Your task to perform on an android device: manage bookmarks in the chrome app Image 0: 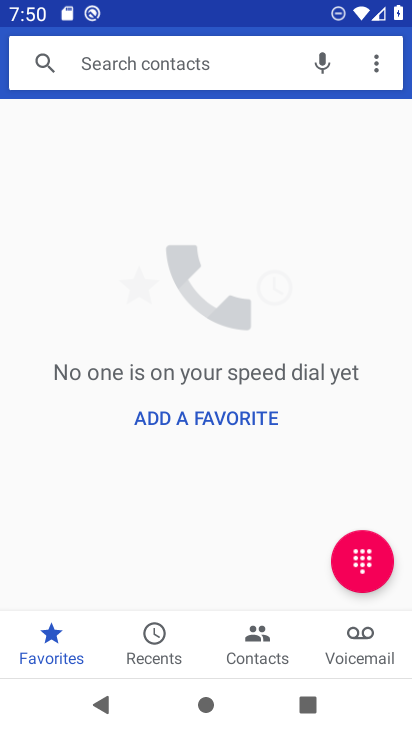
Step 0: press home button
Your task to perform on an android device: manage bookmarks in the chrome app Image 1: 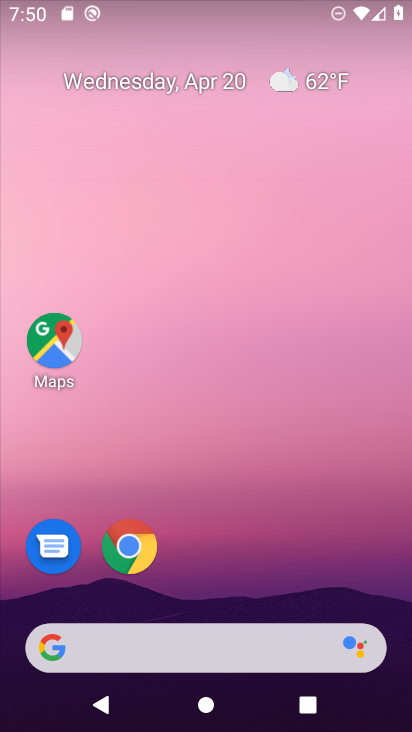
Step 1: click (141, 544)
Your task to perform on an android device: manage bookmarks in the chrome app Image 2: 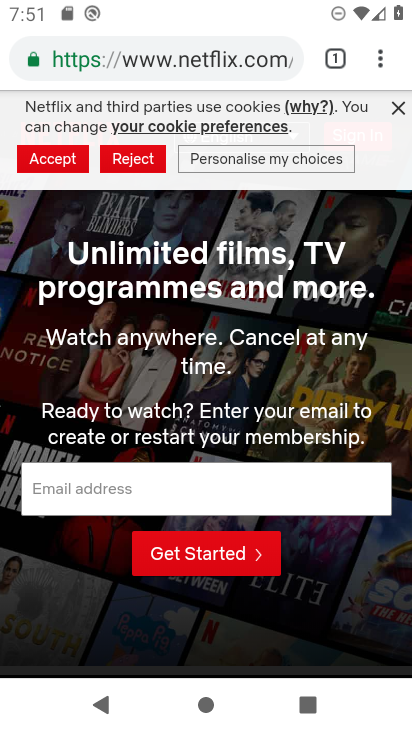
Step 2: click (378, 53)
Your task to perform on an android device: manage bookmarks in the chrome app Image 3: 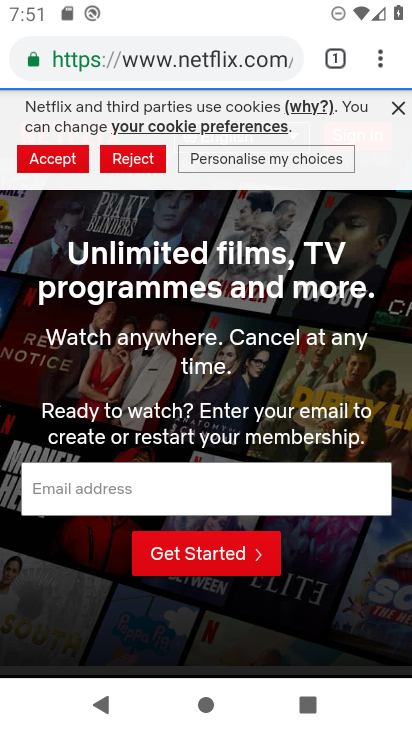
Step 3: click (378, 53)
Your task to perform on an android device: manage bookmarks in the chrome app Image 4: 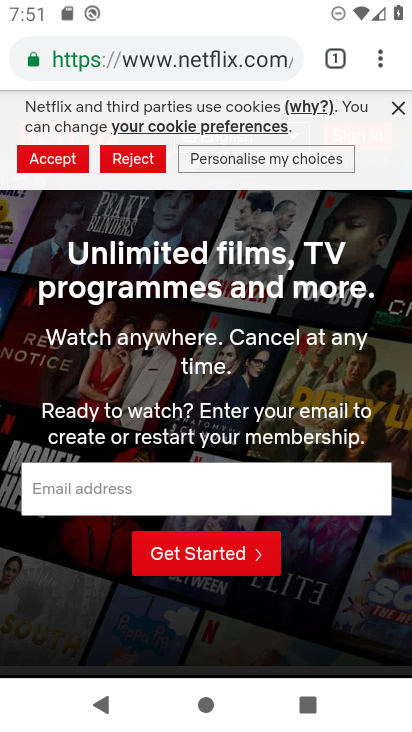
Step 4: drag from (378, 51) to (256, 225)
Your task to perform on an android device: manage bookmarks in the chrome app Image 5: 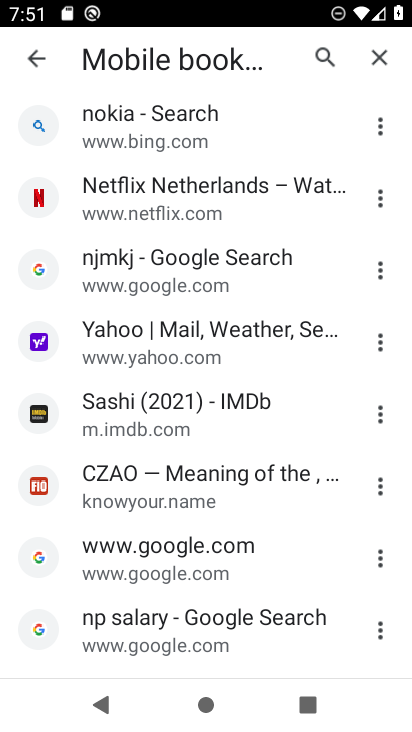
Step 5: click (381, 339)
Your task to perform on an android device: manage bookmarks in the chrome app Image 6: 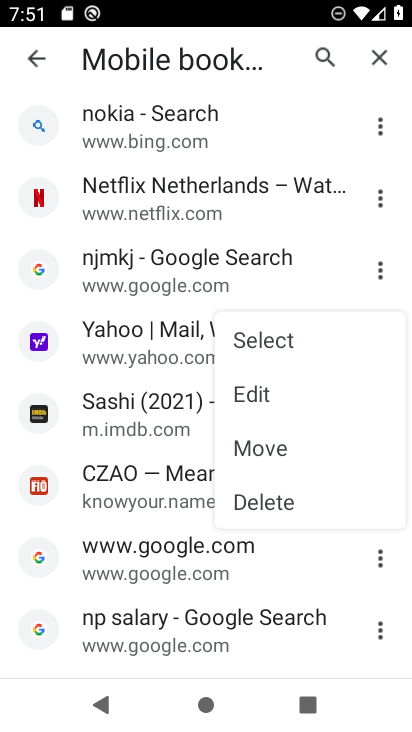
Step 6: click (311, 387)
Your task to perform on an android device: manage bookmarks in the chrome app Image 7: 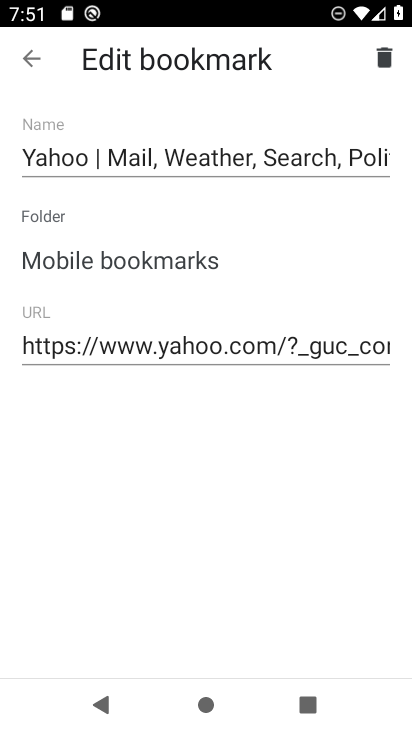
Step 7: click (29, 52)
Your task to perform on an android device: manage bookmarks in the chrome app Image 8: 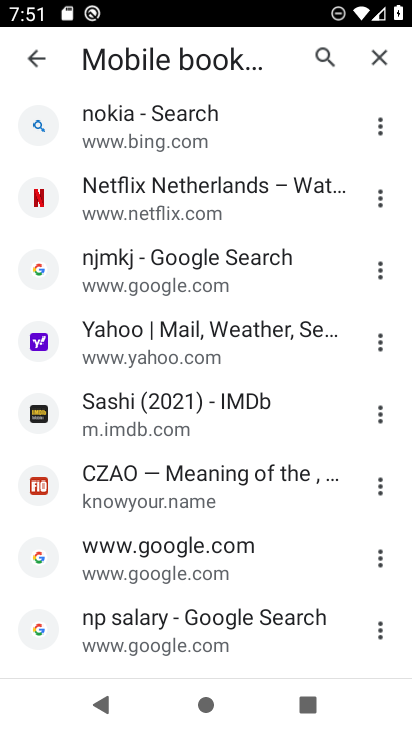
Step 8: task complete